Your task to perform on an android device: Open the Play Movies app and select the watchlist tab. Image 0: 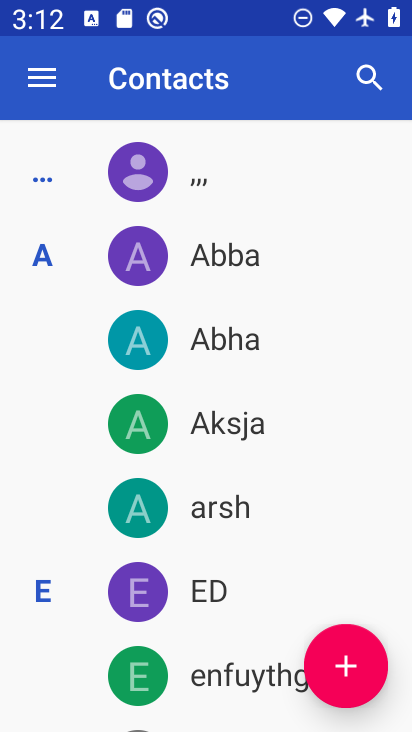
Step 0: press home button
Your task to perform on an android device: Open the Play Movies app and select the watchlist tab. Image 1: 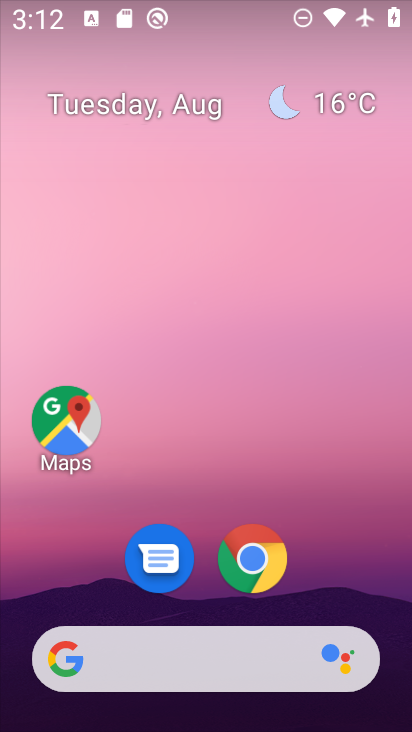
Step 1: drag from (217, 494) to (217, 182)
Your task to perform on an android device: Open the Play Movies app and select the watchlist tab. Image 2: 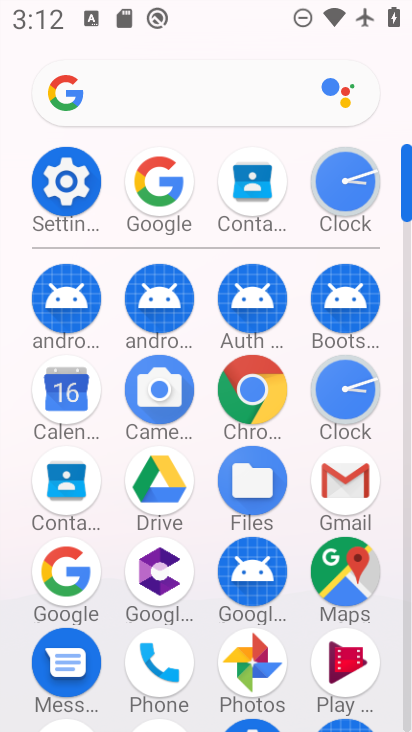
Step 2: click (366, 672)
Your task to perform on an android device: Open the Play Movies app and select the watchlist tab. Image 3: 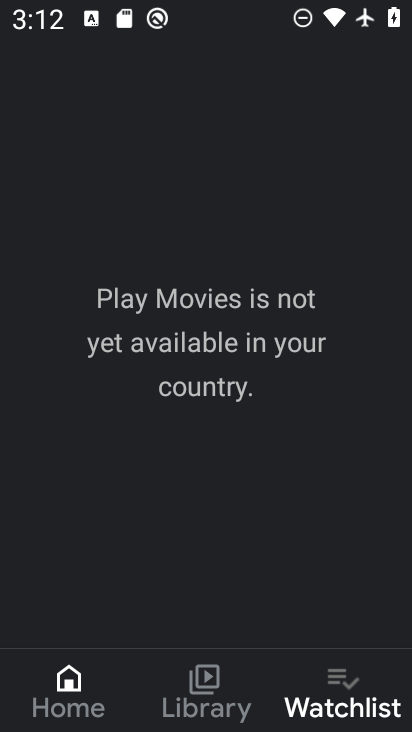
Step 3: click (354, 679)
Your task to perform on an android device: Open the Play Movies app and select the watchlist tab. Image 4: 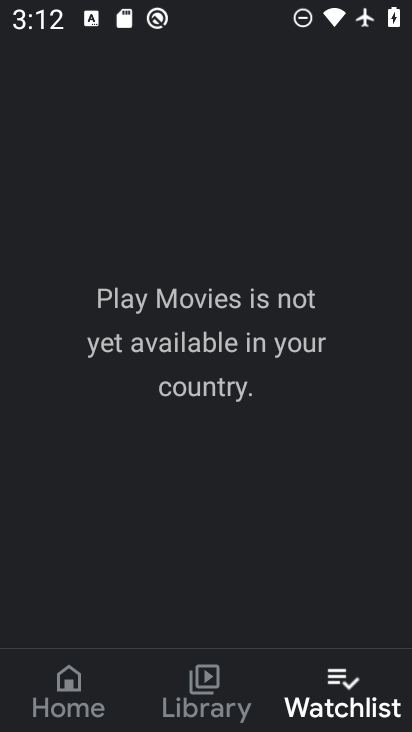
Step 4: task complete